Your task to perform on an android device: Go to settings Image 0: 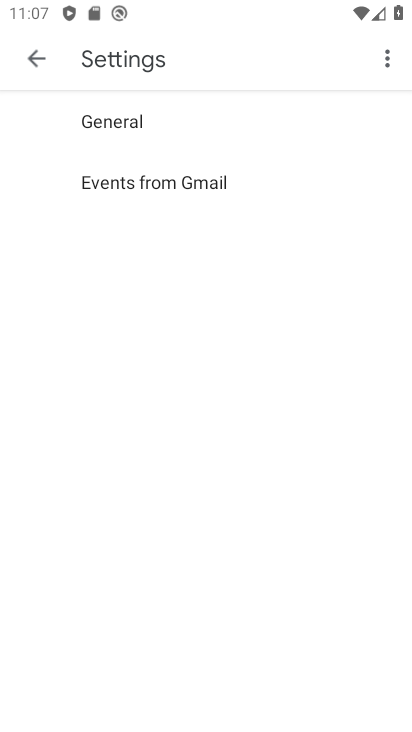
Step 0: press back button
Your task to perform on an android device: Go to settings Image 1: 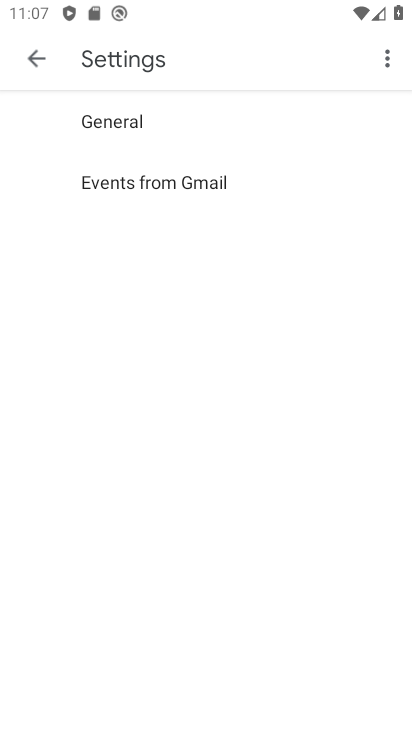
Step 1: press back button
Your task to perform on an android device: Go to settings Image 2: 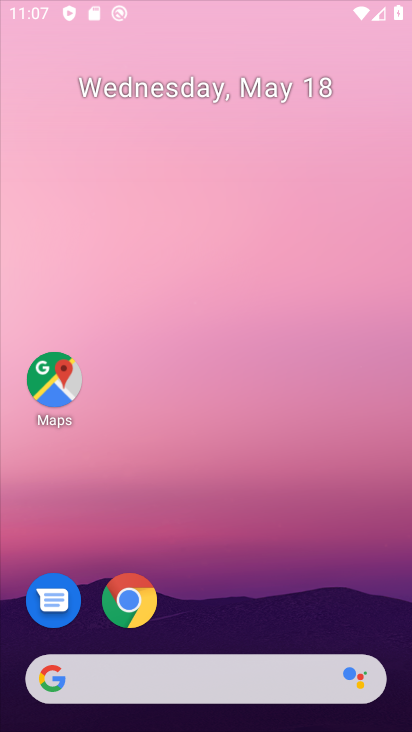
Step 2: press back button
Your task to perform on an android device: Go to settings Image 3: 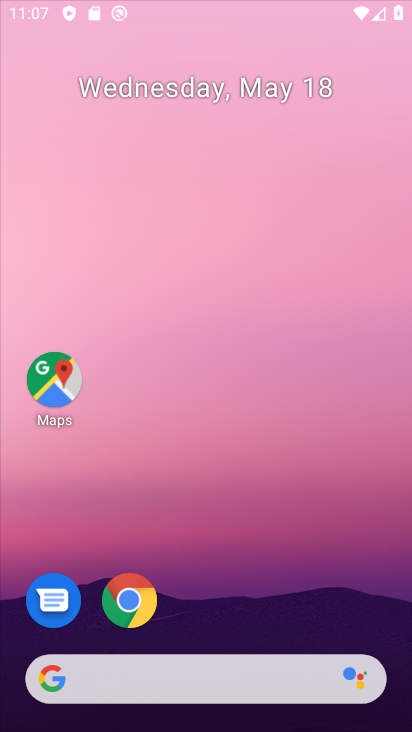
Step 3: click (30, 60)
Your task to perform on an android device: Go to settings Image 4: 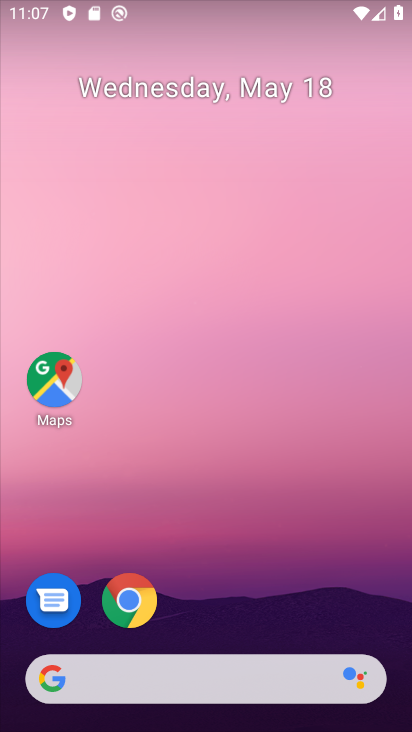
Step 4: click (33, 56)
Your task to perform on an android device: Go to settings Image 5: 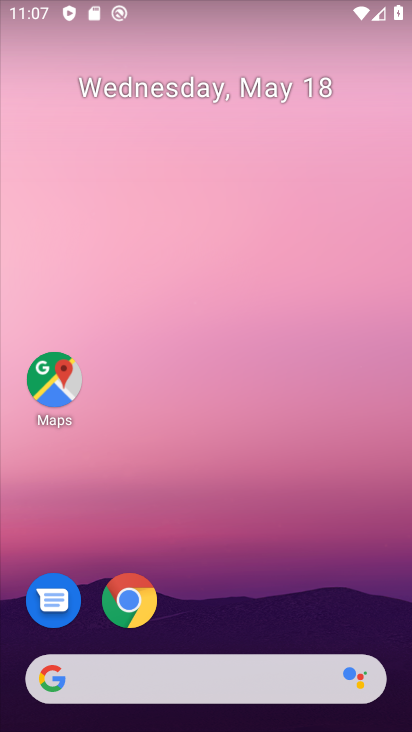
Step 5: drag from (272, 699) to (183, 38)
Your task to perform on an android device: Go to settings Image 6: 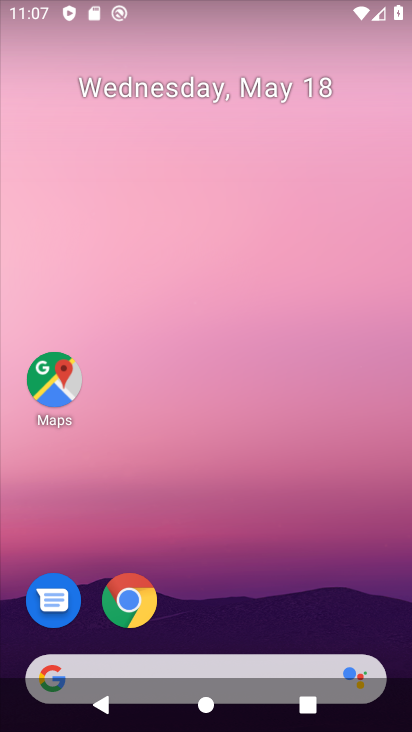
Step 6: drag from (269, 606) to (183, 79)
Your task to perform on an android device: Go to settings Image 7: 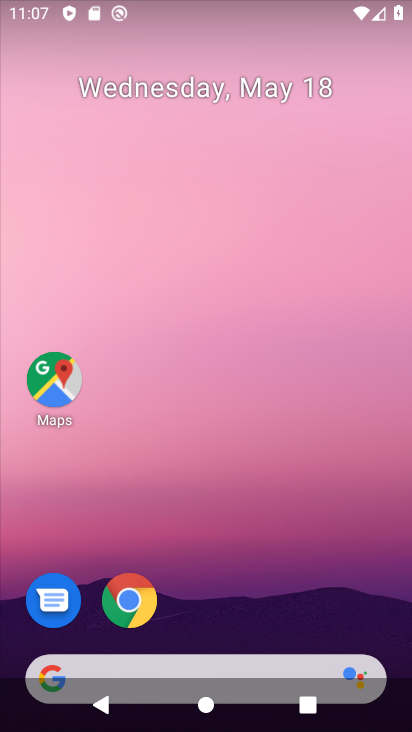
Step 7: drag from (281, 615) to (174, 133)
Your task to perform on an android device: Go to settings Image 8: 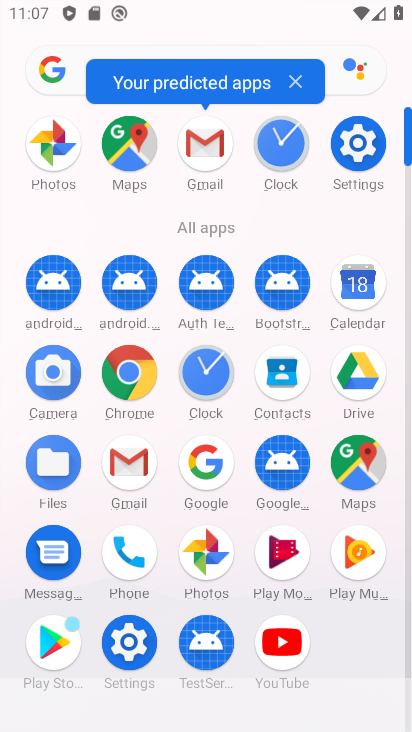
Step 8: click (362, 160)
Your task to perform on an android device: Go to settings Image 9: 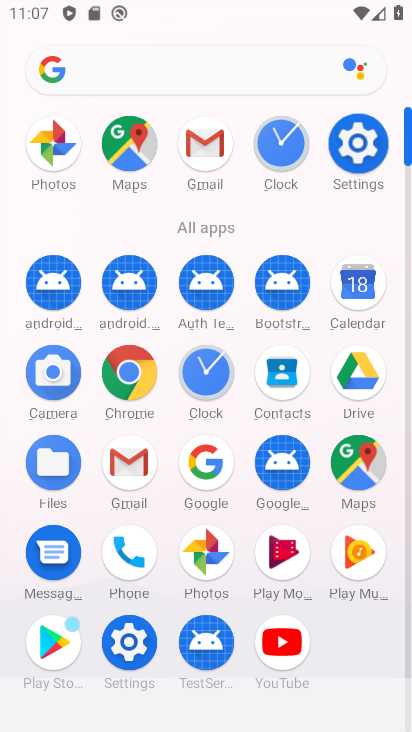
Step 9: click (360, 161)
Your task to perform on an android device: Go to settings Image 10: 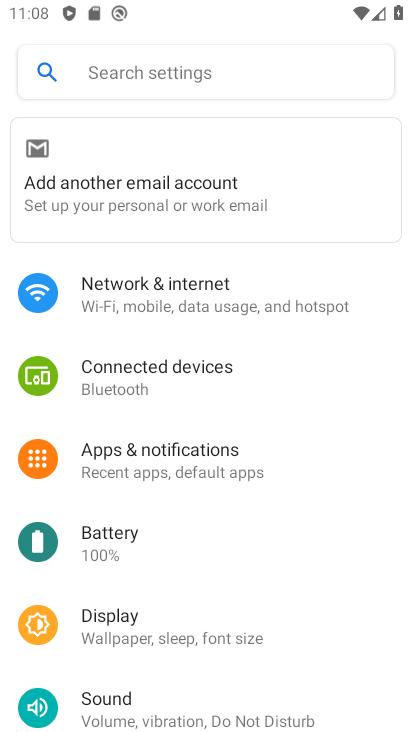
Step 10: drag from (218, 453) to (188, 78)
Your task to perform on an android device: Go to settings Image 11: 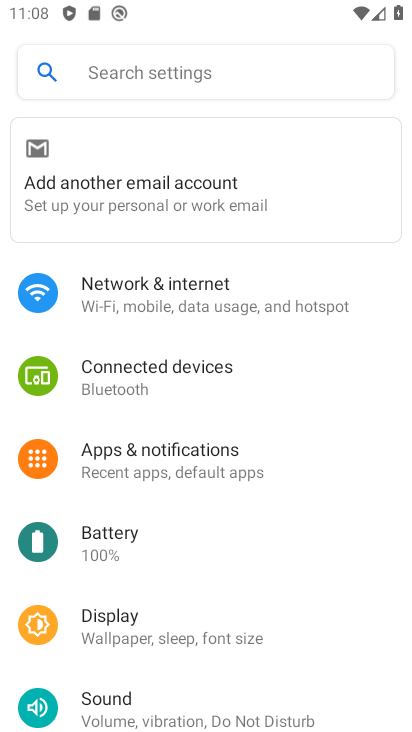
Step 11: drag from (172, 409) to (149, 197)
Your task to perform on an android device: Go to settings Image 12: 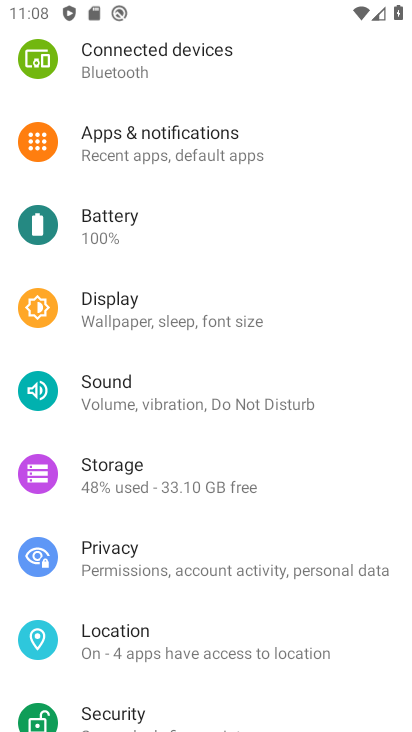
Step 12: drag from (130, 515) to (127, 253)
Your task to perform on an android device: Go to settings Image 13: 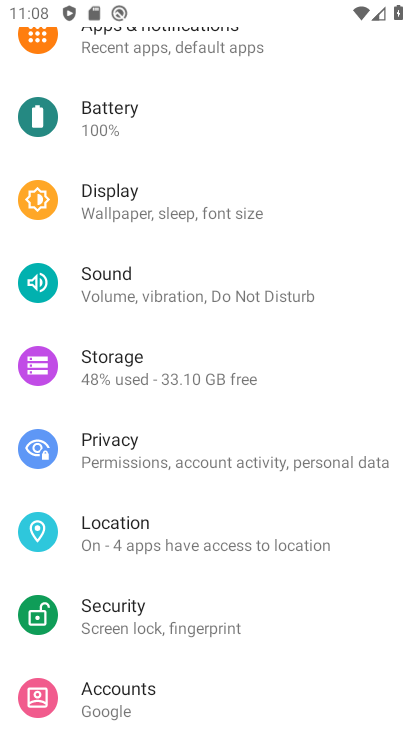
Step 13: drag from (250, 223) to (268, 321)
Your task to perform on an android device: Go to settings Image 14: 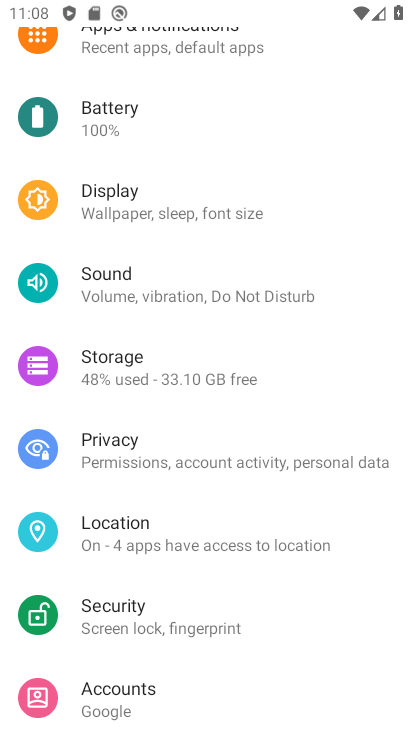
Step 14: click (235, 203)
Your task to perform on an android device: Go to settings Image 15: 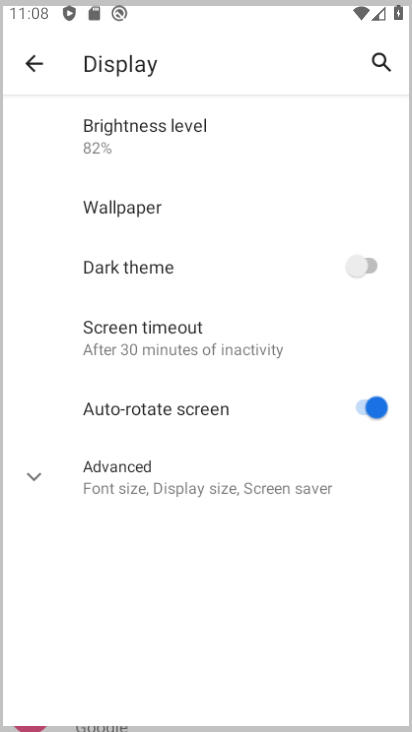
Step 15: drag from (166, 165) to (186, 322)
Your task to perform on an android device: Go to settings Image 16: 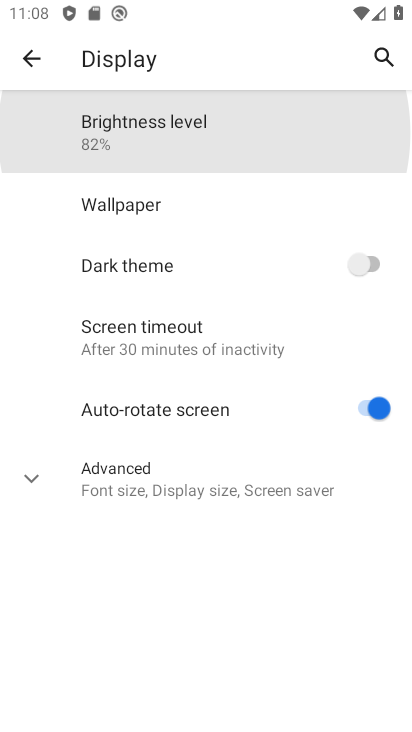
Step 16: drag from (160, 137) to (225, 488)
Your task to perform on an android device: Go to settings Image 17: 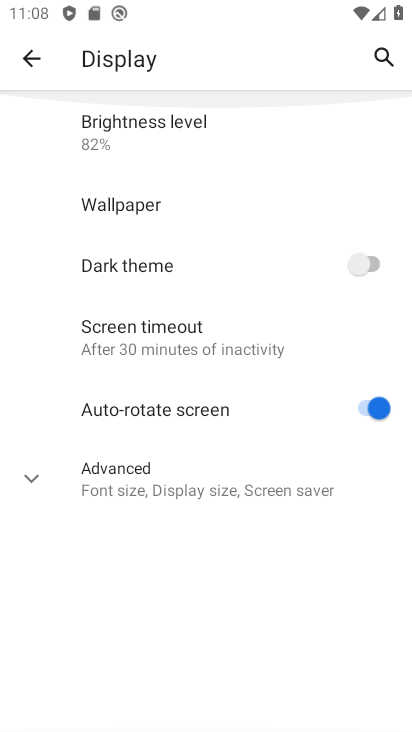
Step 17: drag from (180, 239) to (225, 512)
Your task to perform on an android device: Go to settings Image 18: 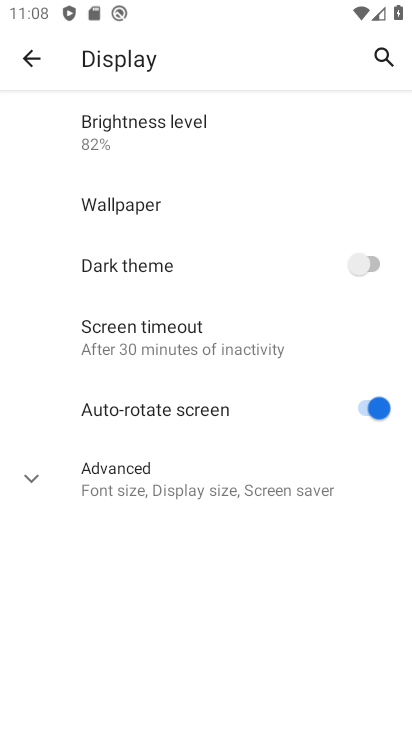
Step 18: click (26, 54)
Your task to perform on an android device: Go to settings Image 19: 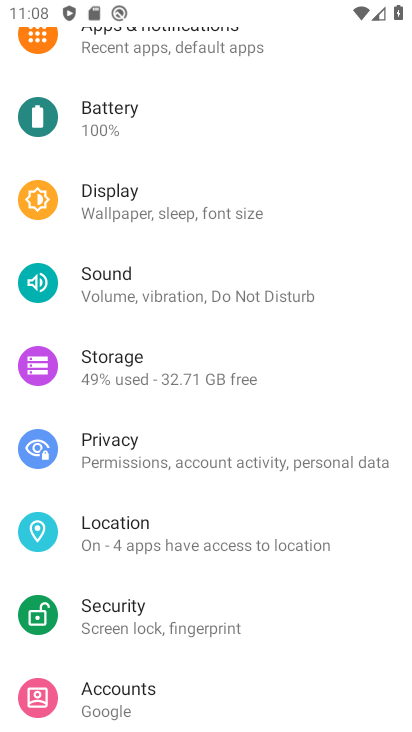
Step 19: drag from (130, 226) to (206, 541)
Your task to perform on an android device: Go to settings Image 20: 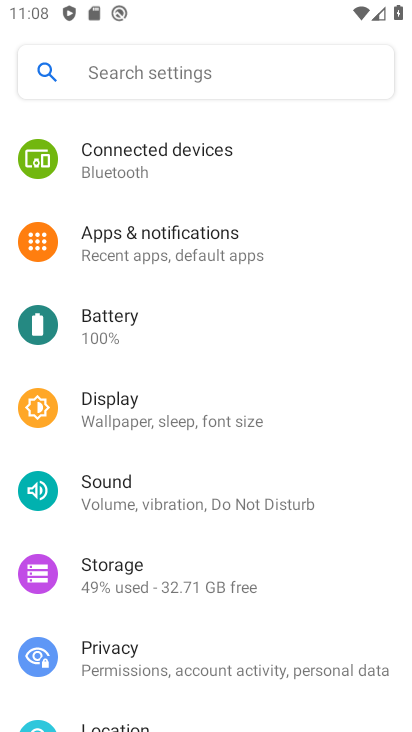
Step 20: click (198, 526)
Your task to perform on an android device: Go to settings Image 21: 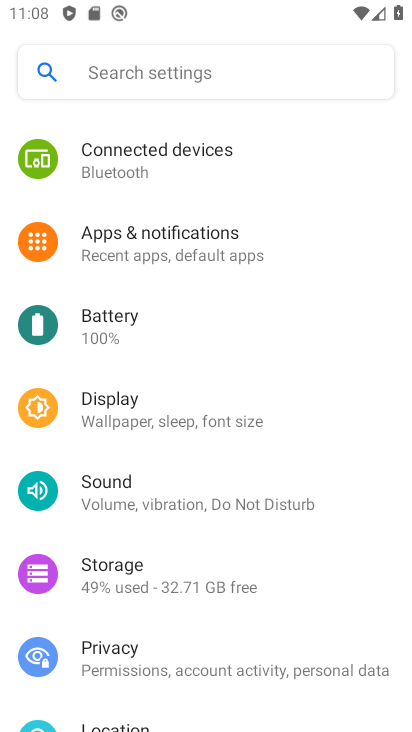
Step 21: drag from (137, 231) to (186, 638)
Your task to perform on an android device: Go to settings Image 22: 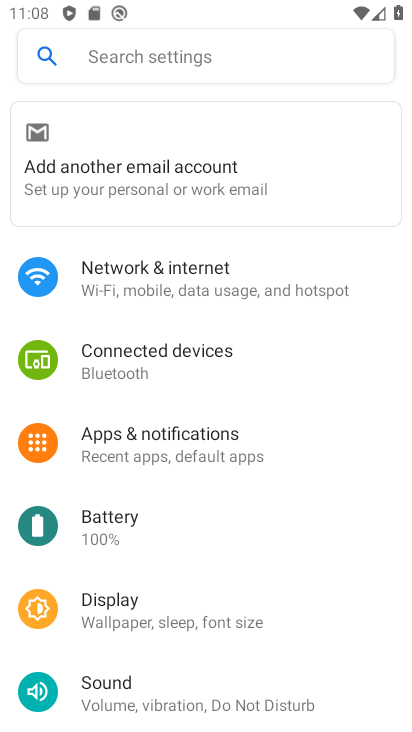
Step 22: drag from (186, 293) to (220, 497)
Your task to perform on an android device: Go to settings Image 23: 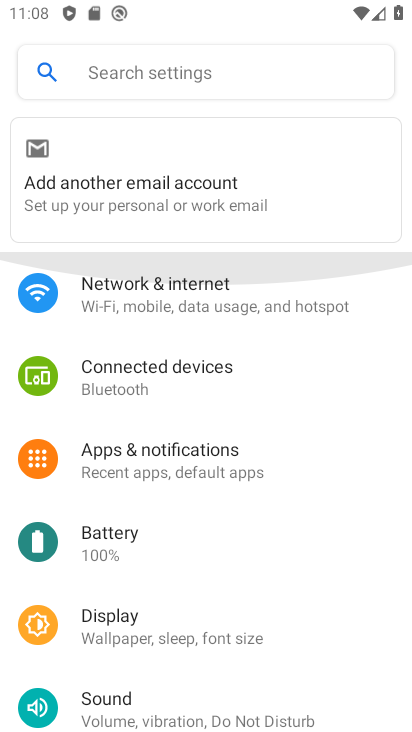
Step 23: click (193, 571)
Your task to perform on an android device: Go to settings Image 24: 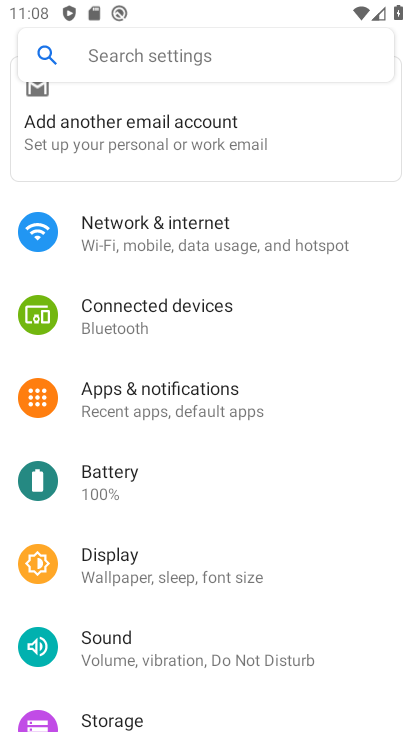
Step 24: task complete